Your task to perform on an android device: check storage Image 0: 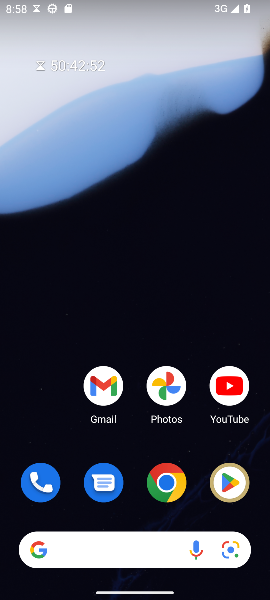
Step 0: drag from (77, 509) to (159, 144)
Your task to perform on an android device: check storage Image 1: 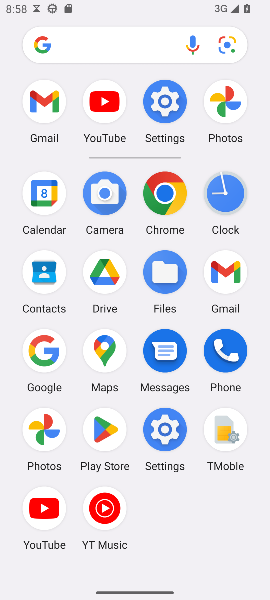
Step 1: click (167, 115)
Your task to perform on an android device: check storage Image 2: 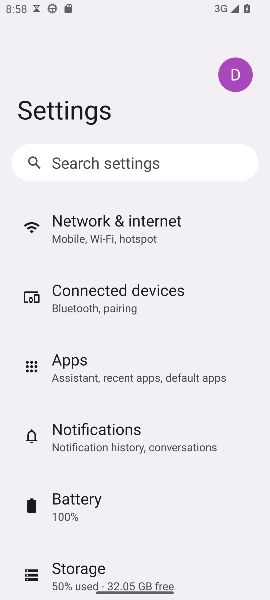
Step 2: drag from (142, 505) to (178, 224)
Your task to perform on an android device: check storage Image 3: 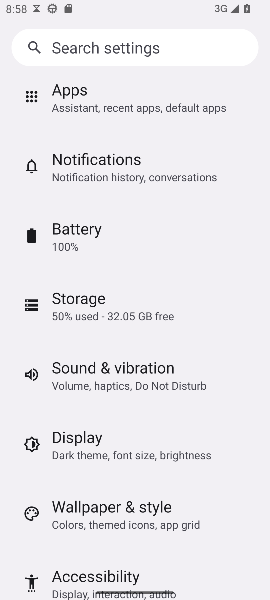
Step 3: click (61, 319)
Your task to perform on an android device: check storage Image 4: 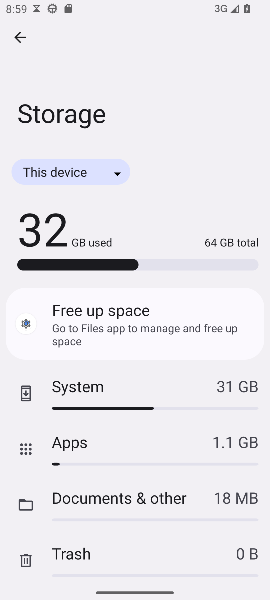
Step 4: task complete